Your task to perform on an android device: Search for custom wallets on Etsy. Image 0: 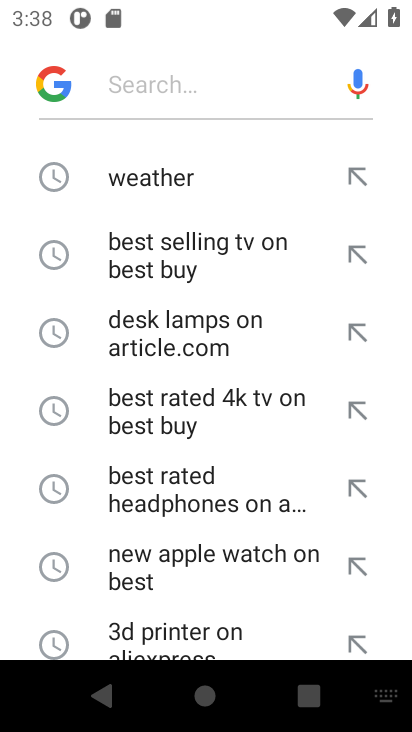
Step 0: press home button
Your task to perform on an android device: Search for custom wallets on Etsy. Image 1: 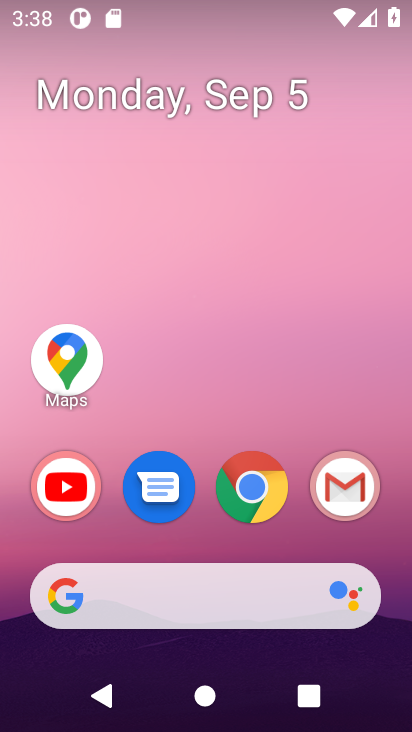
Step 1: click (261, 506)
Your task to perform on an android device: Search for custom wallets on Etsy. Image 2: 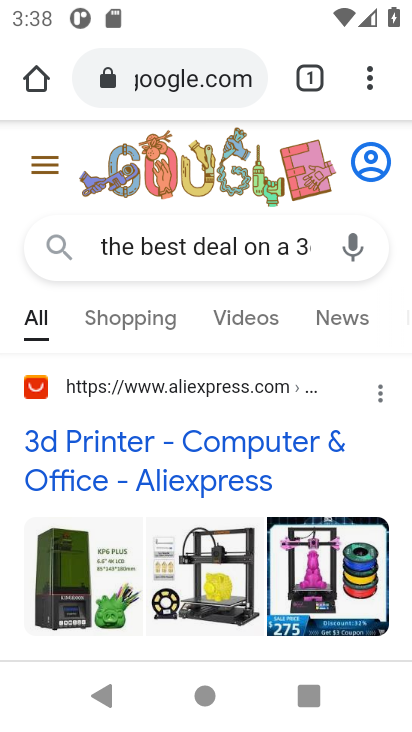
Step 2: click (187, 74)
Your task to perform on an android device: Search for custom wallets on Etsy. Image 3: 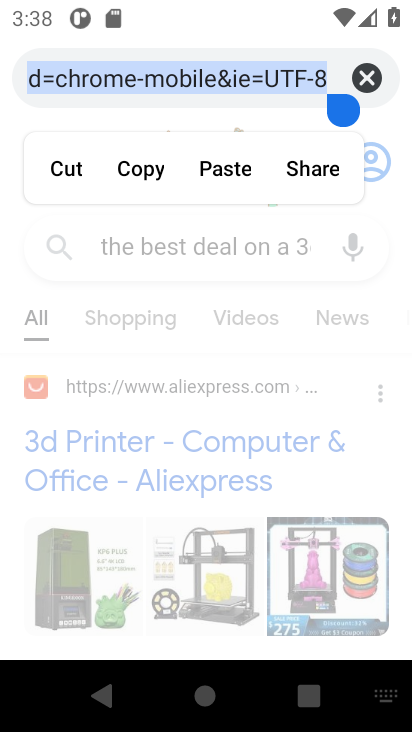
Step 3: click (367, 84)
Your task to perform on an android device: Search for custom wallets on Etsy. Image 4: 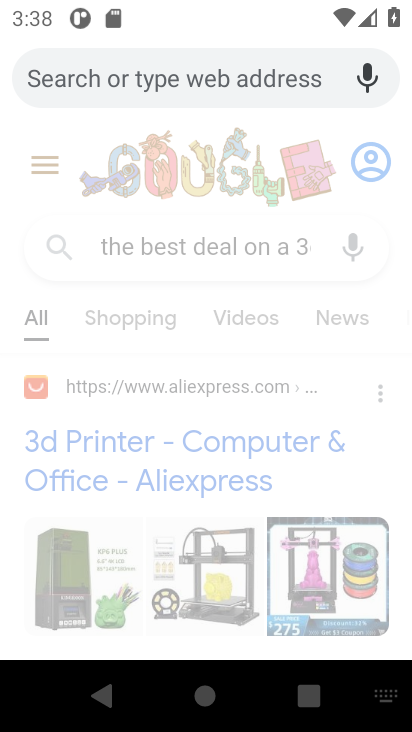
Step 4: type "custom wallets on Etsy."
Your task to perform on an android device: Search for custom wallets on Etsy. Image 5: 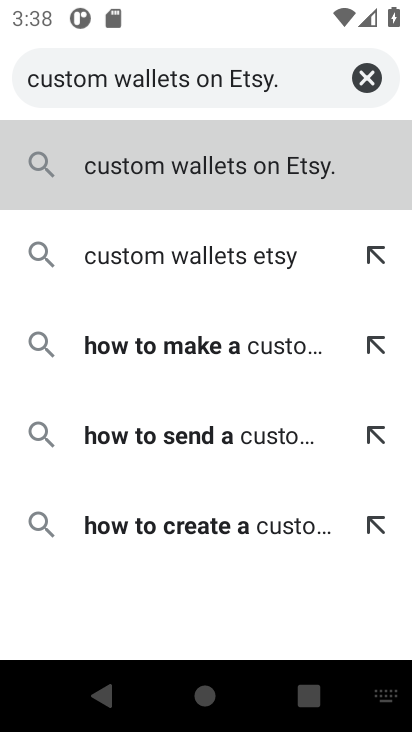
Step 5: click (237, 171)
Your task to perform on an android device: Search for custom wallets on Etsy. Image 6: 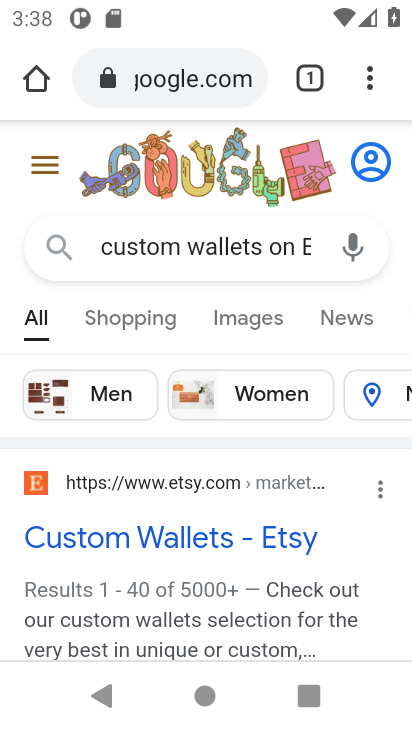
Step 6: task complete